Your task to perform on an android device: change the clock display to analog Image 0: 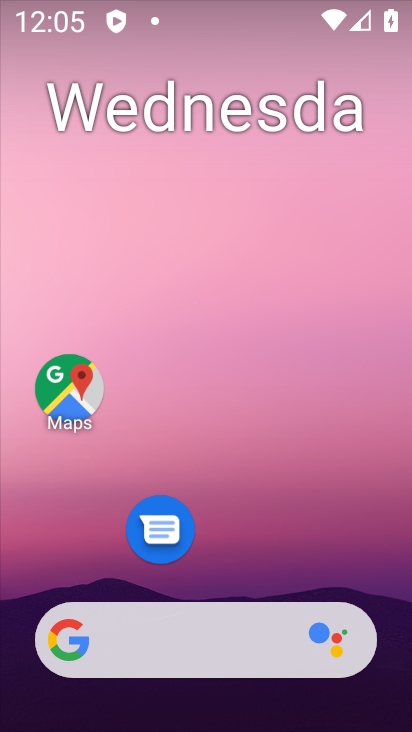
Step 0: drag from (178, 597) to (217, 25)
Your task to perform on an android device: change the clock display to analog Image 1: 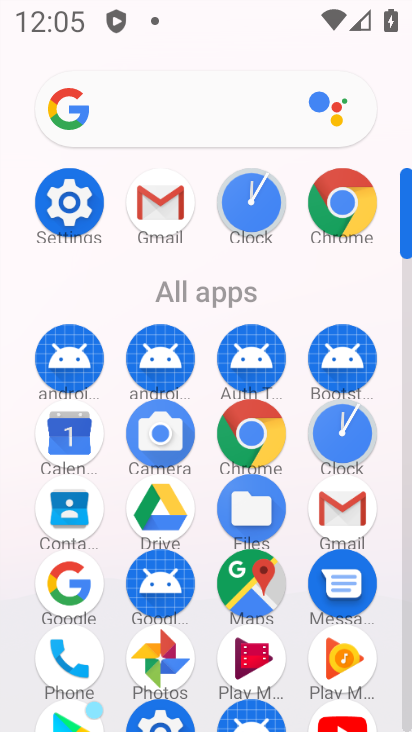
Step 1: click (365, 432)
Your task to perform on an android device: change the clock display to analog Image 2: 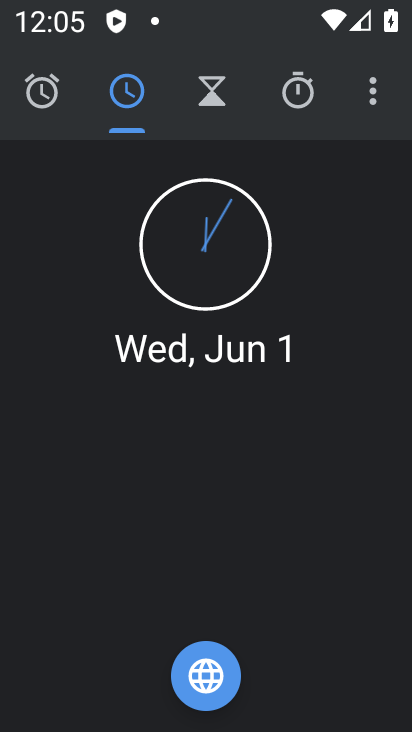
Step 2: click (369, 95)
Your task to perform on an android device: change the clock display to analog Image 3: 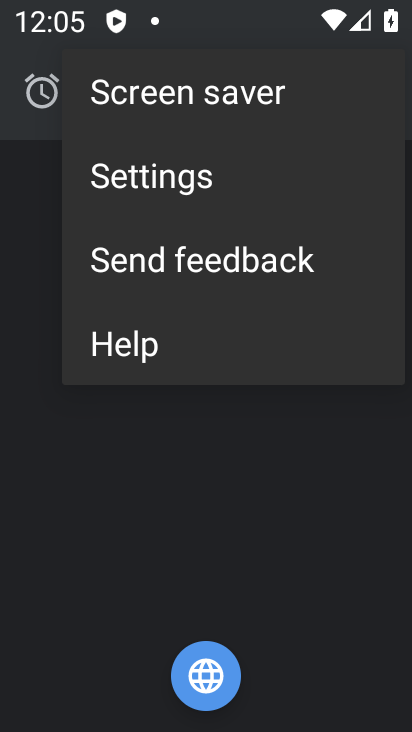
Step 3: click (182, 186)
Your task to perform on an android device: change the clock display to analog Image 4: 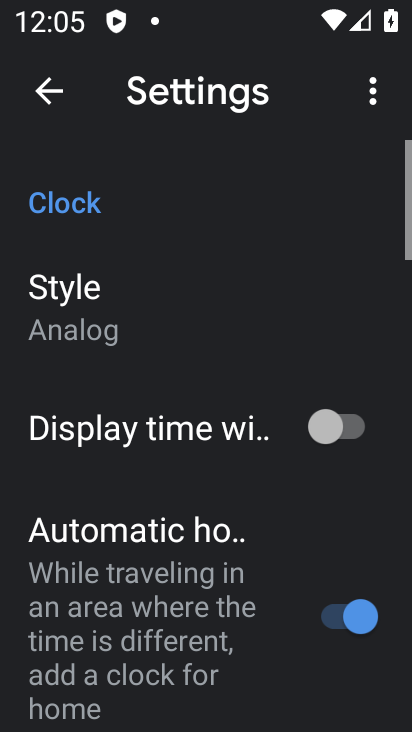
Step 4: click (89, 307)
Your task to perform on an android device: change the clock display to analog Image 5: 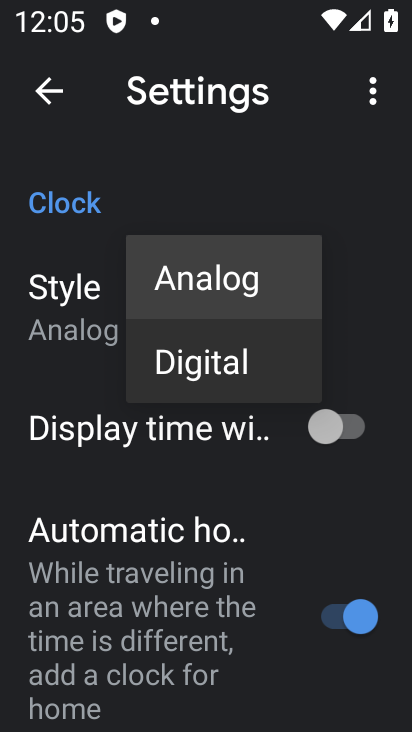
Step 5: click (206, 288)
Your task to perform on an android device: change the clock display to analog Image 6: 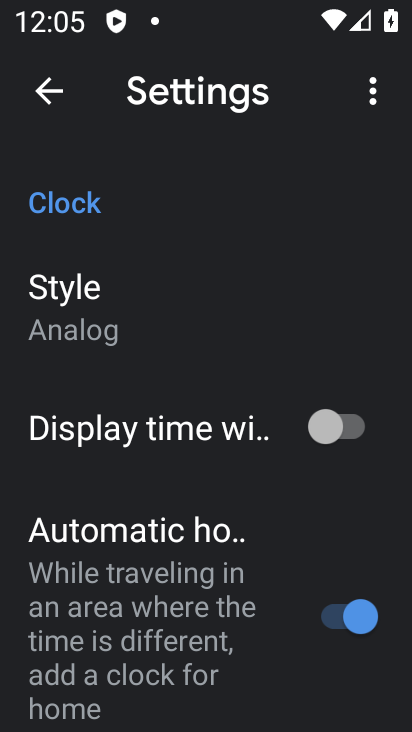
Step 6: task complete